Your task to perform on an android device: Open wifi settings Image 0: 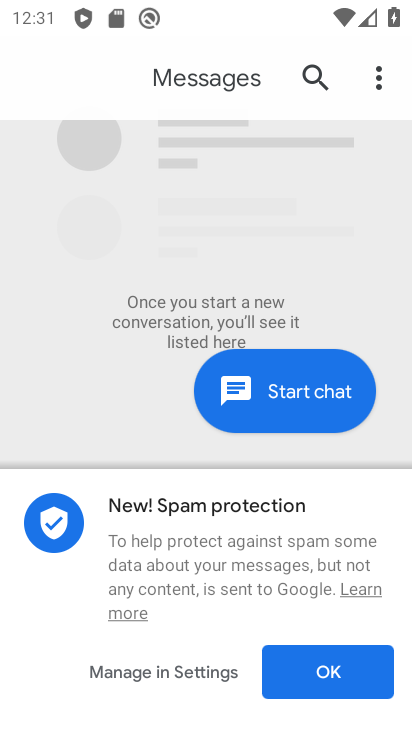
Step 0: press home button
Your task to perform on an android device: Open wifi settings Image 1: 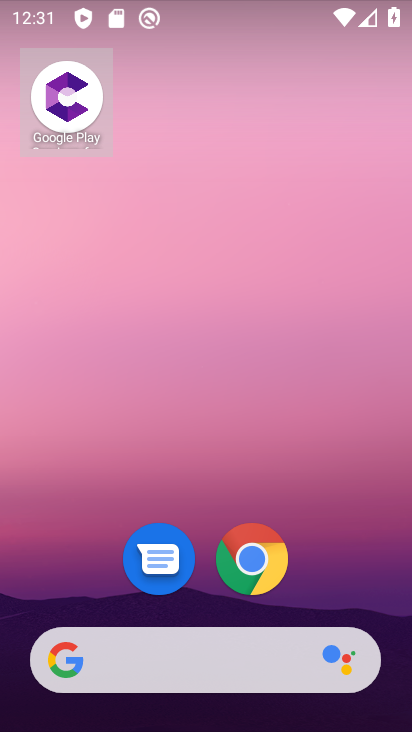
Step 1: drag from (344, 549) to (300, 19)
Your task to perform on an android device: Open wifi settings Image 2: 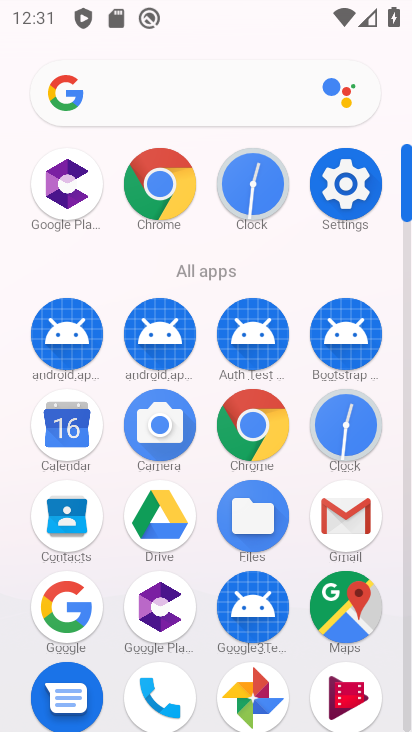
Step 2: click (356, 180)
Your task to perform on an android device: Open wifi settings Image 3: 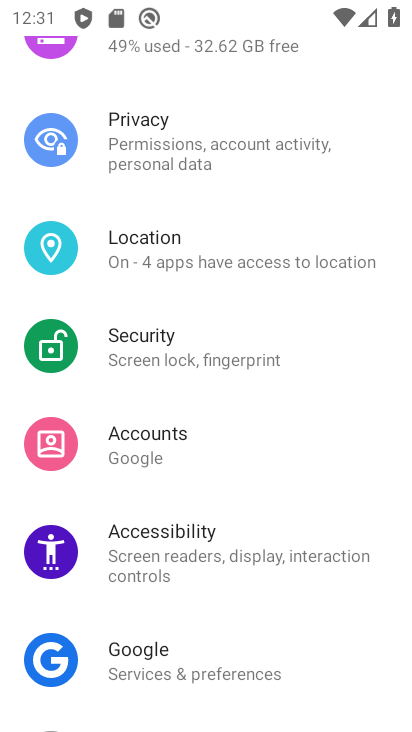
Step 3: drag from (274, 179) to (302, 618)
Your task to perform on an android device: Open wifi settings Image 4: 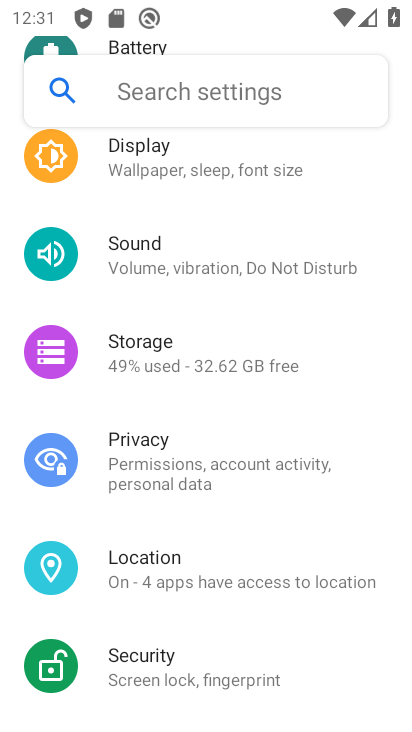
Step 4: drag from (229, 279) to (274, 703)
Your task to perform on an android device: Open wifi settings Image 5: 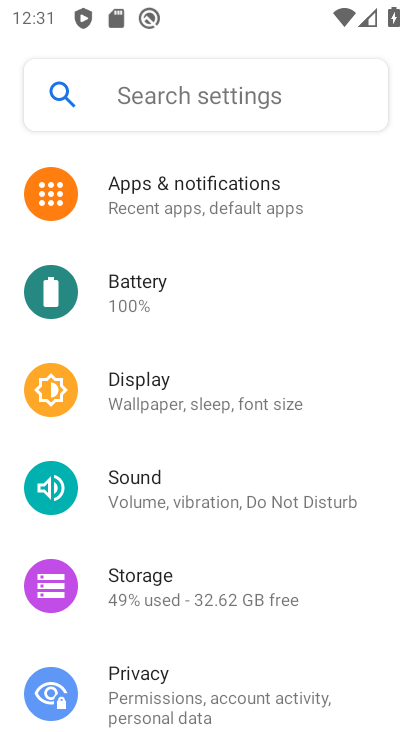
Step 5: drag from (187, 216) to (218, 731)
Your task to perform on an android device: Open wifi settings Image 6: 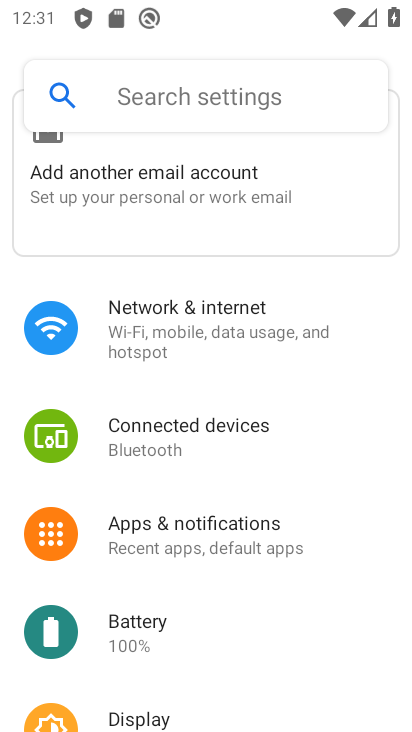
Step 6: click (169, 307)
Your task to perform on an android device: Open wifi settings Image 7: 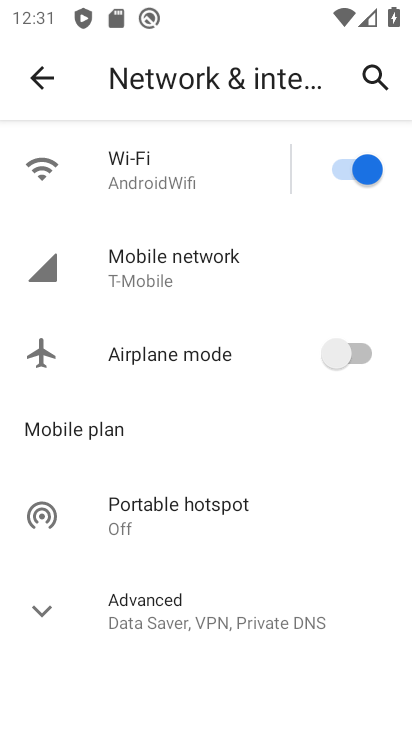
Step 7: click (173, 177)
Your task to perform on an android device: Open wifi settings Image 8: 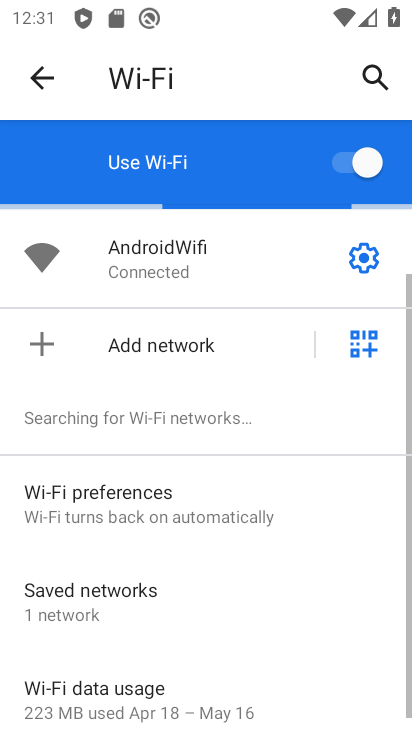
Step 8: task complete